Your task to perform on an android device: What's the weather today? Image 0: 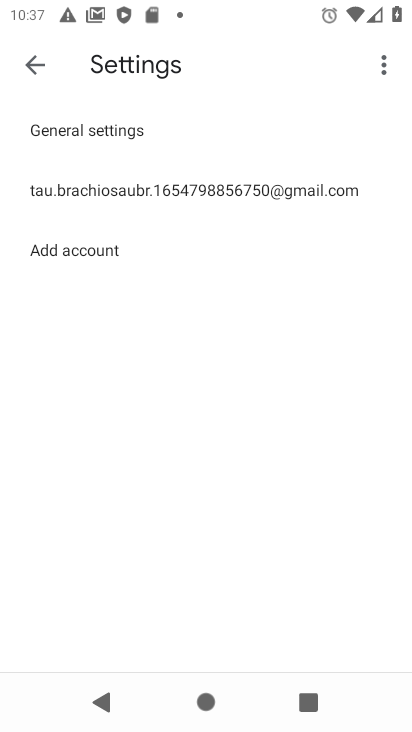
Step 0: press home button
Your task to perform on an android device: What's the weather today? Image 1: 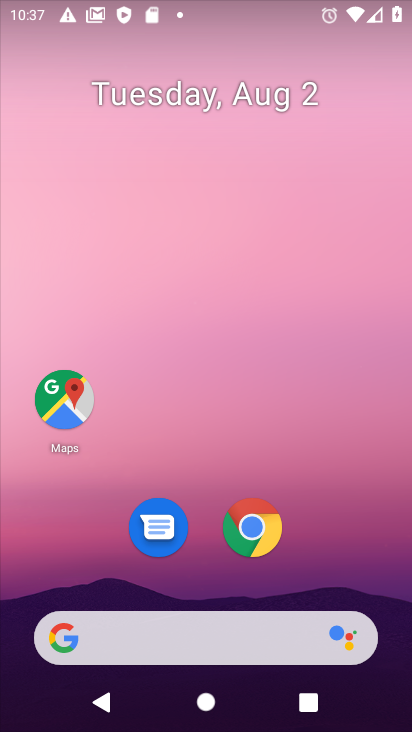
Step 1: click (172, 630)
Your task to perform on an android device: What's the weather today? Image 2: 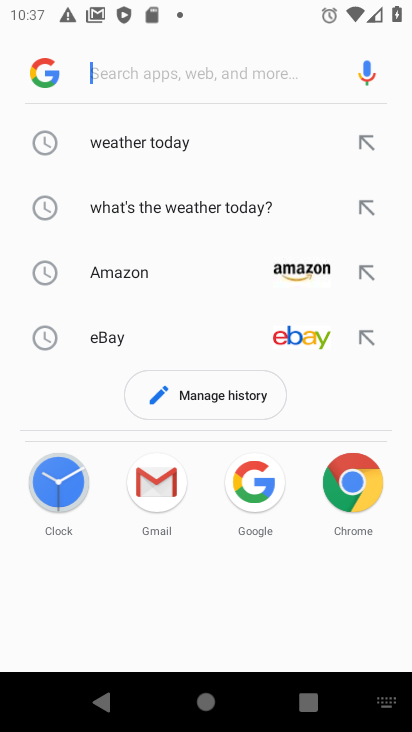
Step 2: click (179, 134)
Your task to perform on an android device: What's the weather today? Image 3: 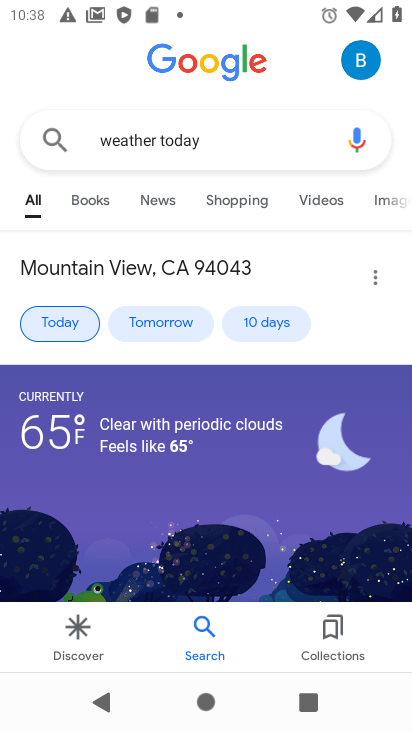
Step 3: task complete